Your task to perform on an android device: empty trash in the gmail app Image 0: 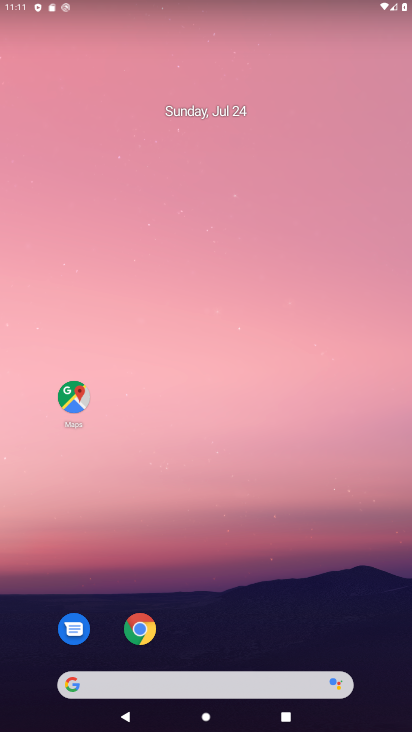
Step 0: drag from (233, 599) to (352, 71)
Your task to perform on an android device: empty trash in the gmail app Image 1: 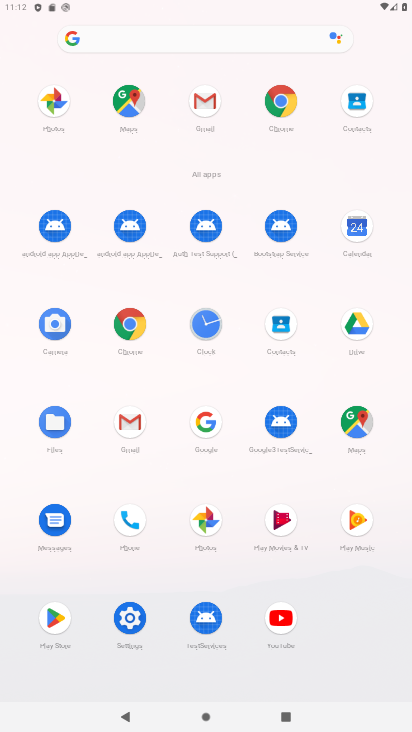
Step 1: click (210, 105)
Your task to perform on an android device: empty trash in the gmail app Image 2: 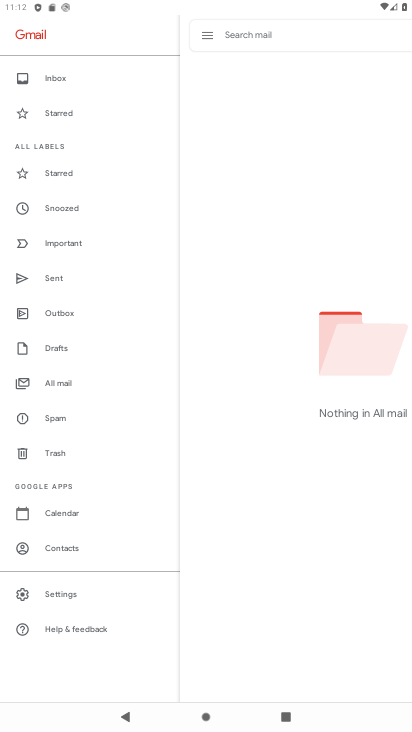
Step 2: click (103, 455)
Your task to perform on an android device: empty trash in the gmail app Image 3: 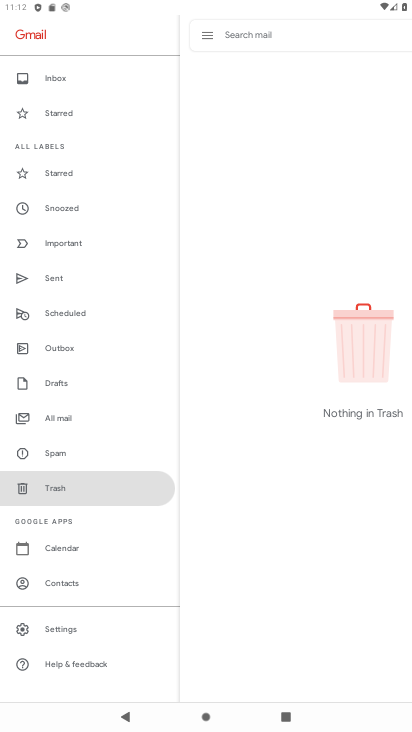
Step 3: task complete